Your task to perform on an android device: What's the weather going to be tomorrow? Image 0: 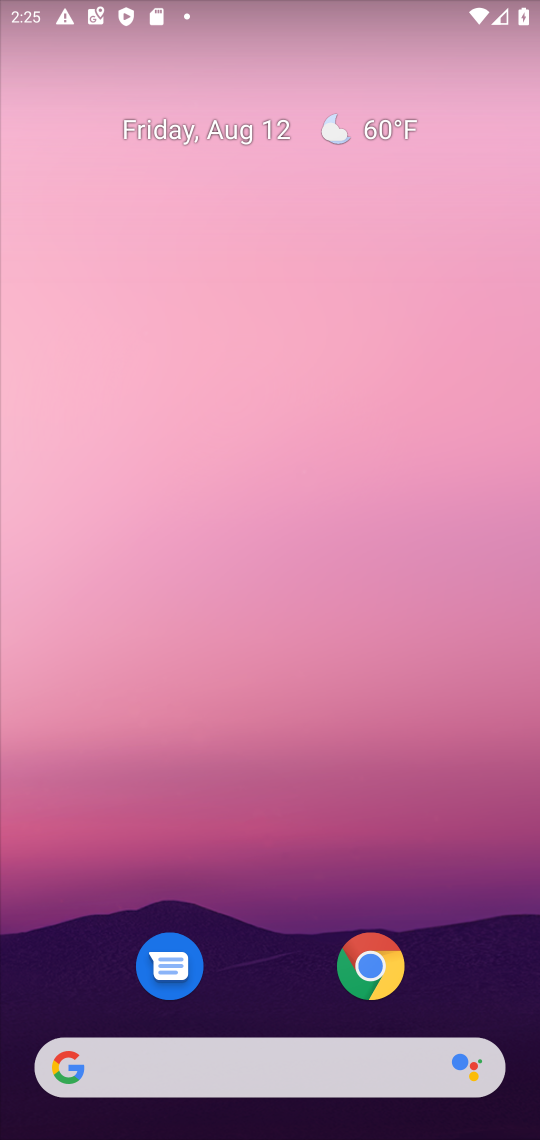
Step 0: click (390, 130)
Your task to perform on an android device: What's the weather going to be tomorrow? Image 1: 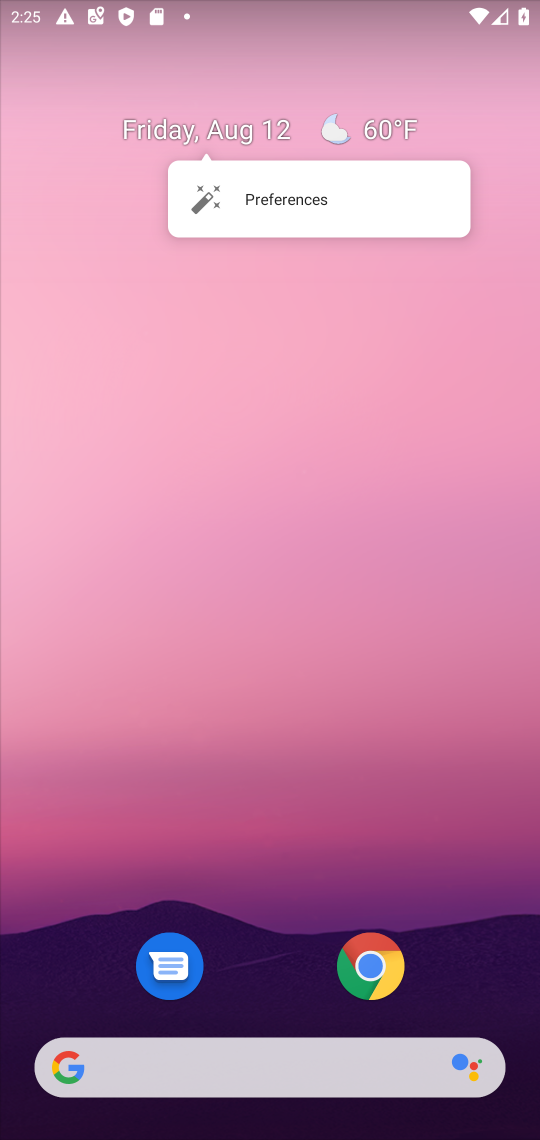
Step 1: click (359, 123)
Your task to perform on an android device: What's the weather going to be tomorrow? Image 2: 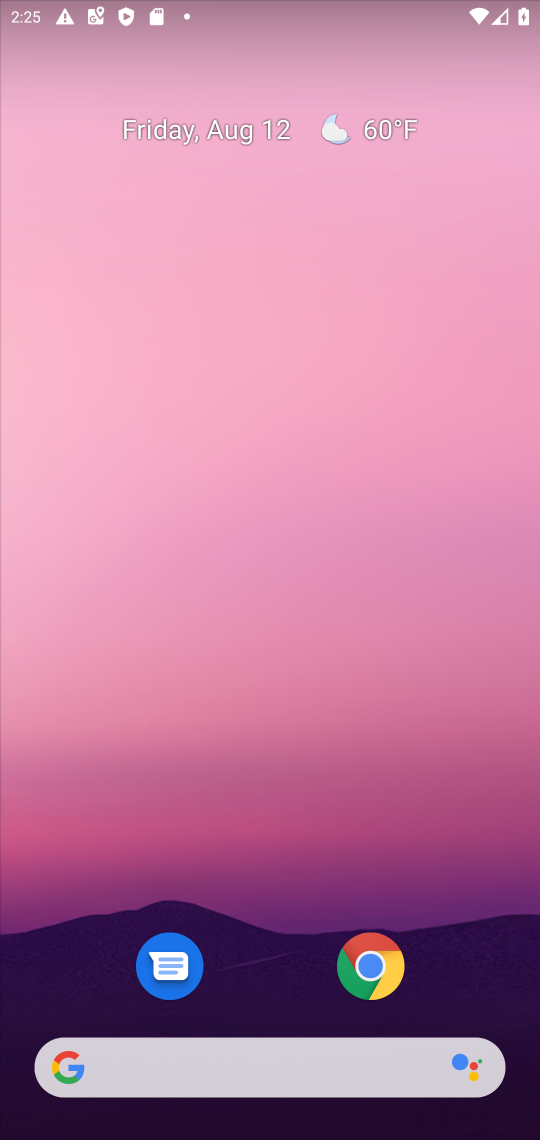
Step 2: click (379, 131)
Your task to perform on an android device: What's the weather going to be tomorrow? Image 3: 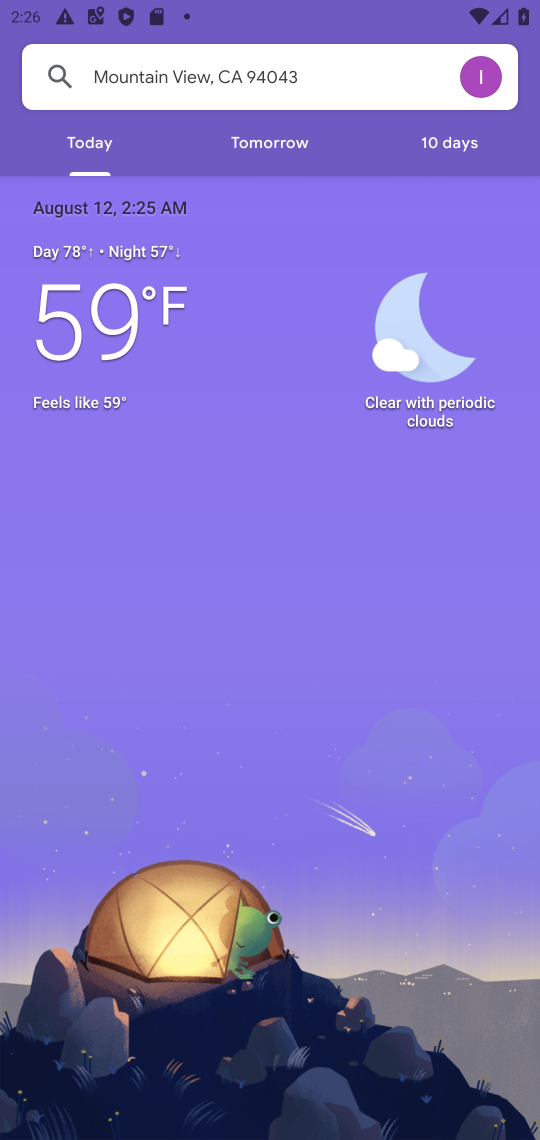
Step 3: click (308, 153)
Your task to perform on an android device: What's the weather going to be tomorrow? Image 4: 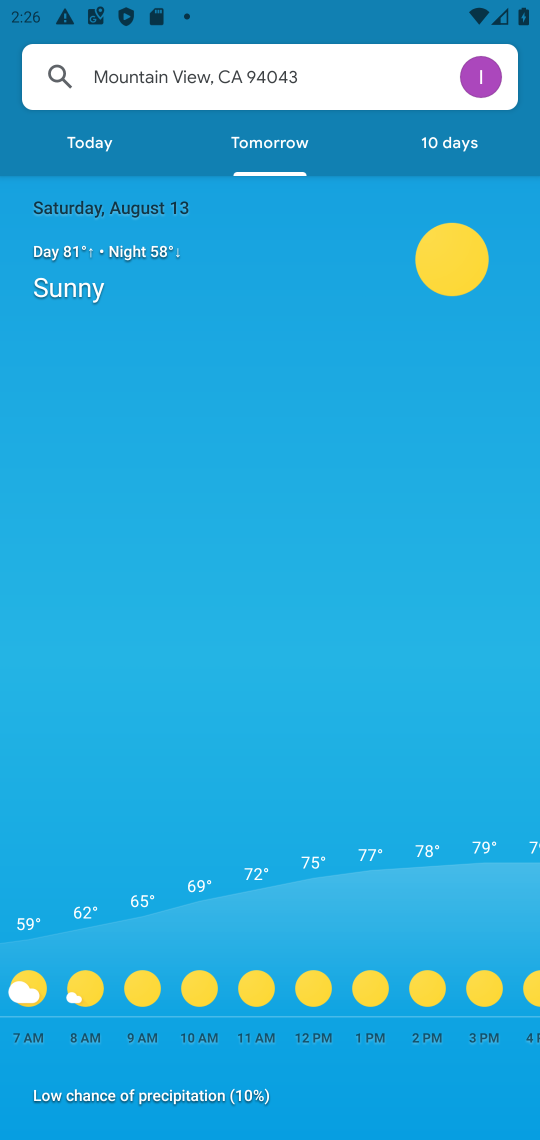
Step 4: task complete